Your task to perform on an android device: find snoozed emails in the gmail app Image 0: 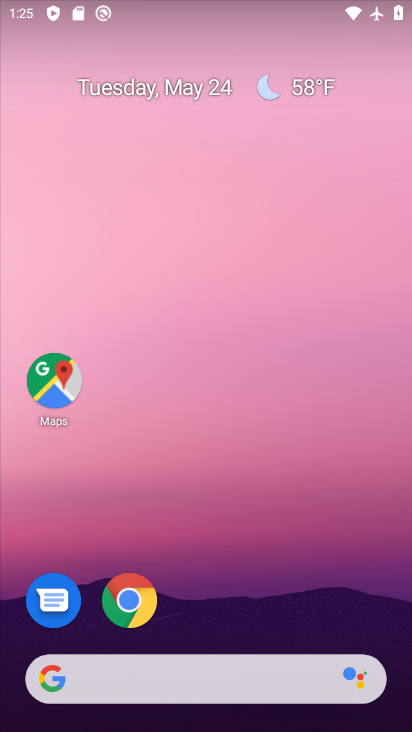
Step 0: drag from (288, 575) to (163, 52)
Your task to perform on an android device: find snoozed emails in the gmail app Image 1: 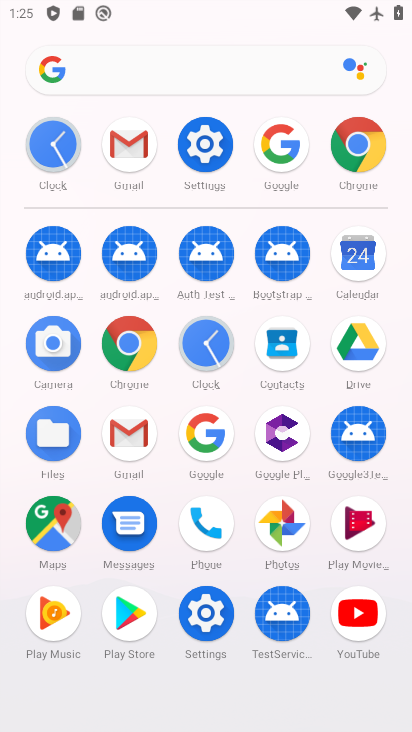
Step 1: click (136, 145)
Your task to perform on an android device: find snoozed emails in the gmail app Image 2: 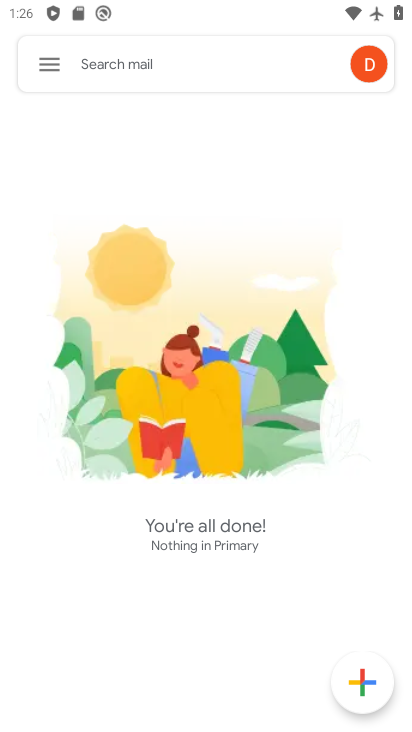
Step 2: click (47, 64)
Your task to perform on an android device: find snoozed emails in the gmail app Image 3: 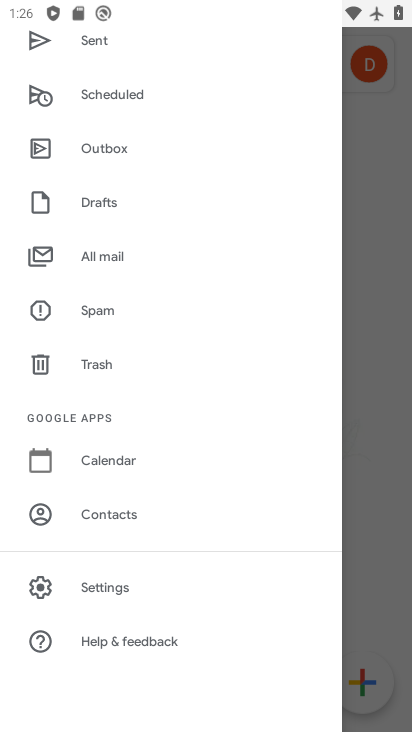
Step 3: click (154, 585)
Your task to perform on an android device: find snoozed emails in the gmail app Image 4: 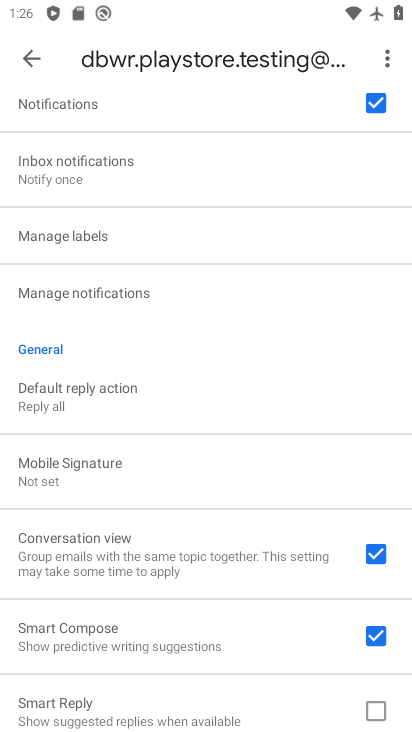
Step 4: click (32, 59)
Your task to perform on an android device: find snoozed emails in the gmail app Image 5: 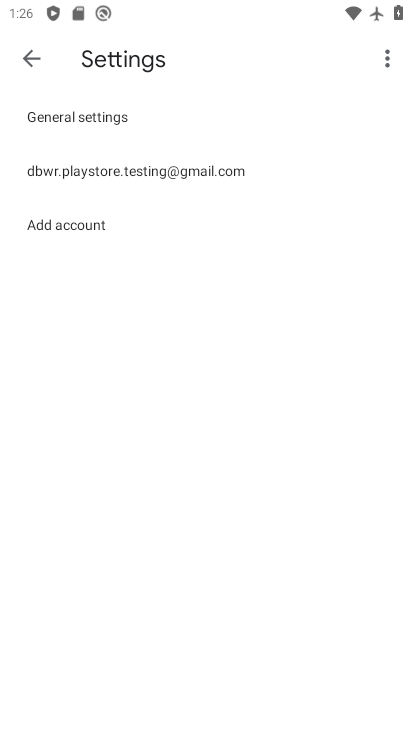
Step 5: click (33, 64)
Your task to perform on an android device: find snoozed emails in the gmail app Image 6: 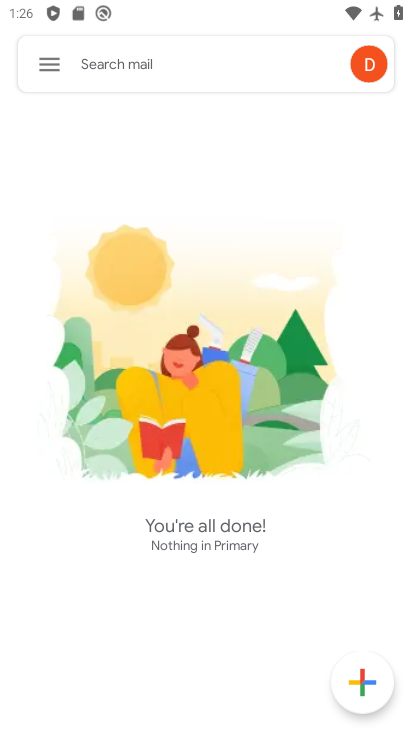
Step 6: click (52, 71)
Your task to perform on an android device: find snoozed emails in the gmail app Image 7: 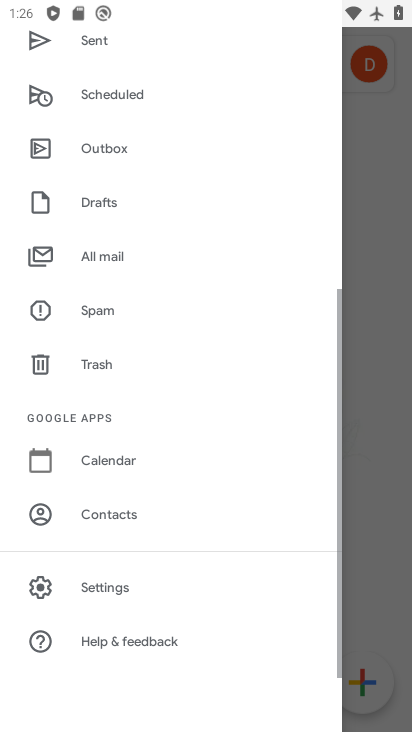
Step 7: drag from (158, 159) to (113, 689)
Your task to perform on an android device: find snoozed emails in the gmail app Image 8: 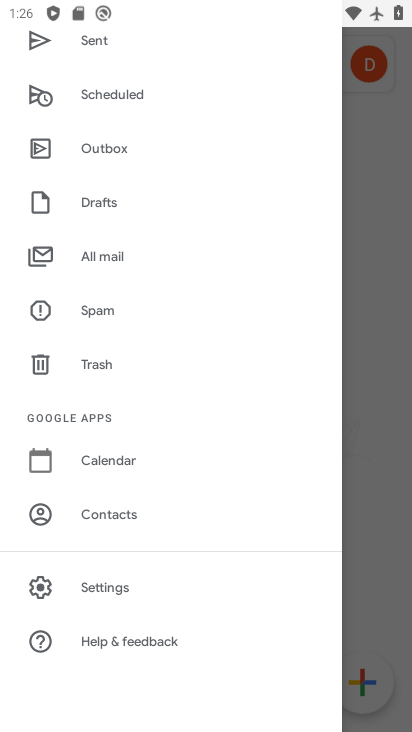
Step 8: drag from (141, 184) to (180, 701)
Your task to perform on an android device: find snoozed emails in the gmail app Image 9: 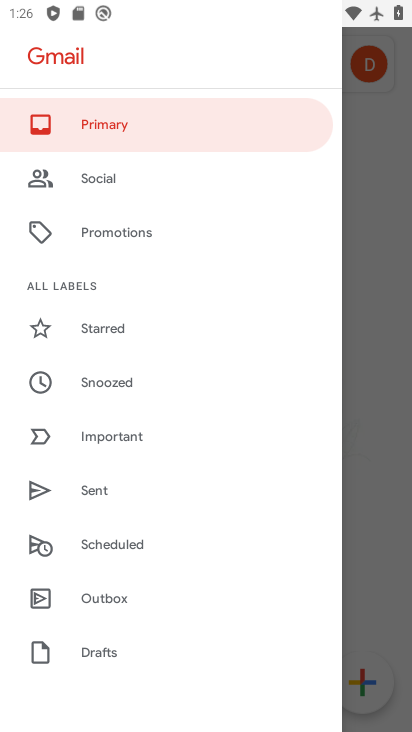
Step 9: click (137, 380)
Your task to perform on an android device: find snoozed emails in the gmail app Image 10: 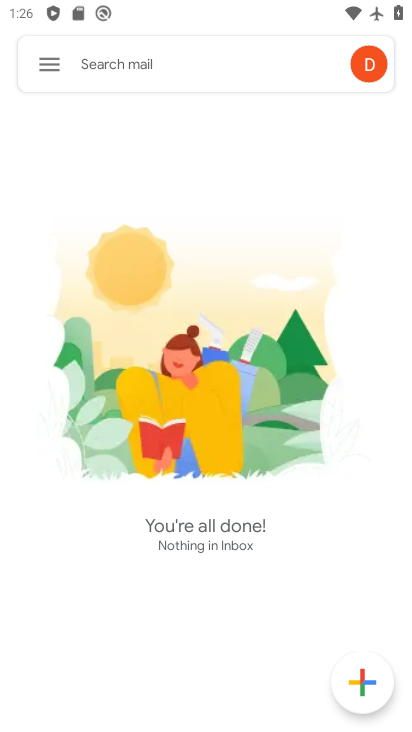
Step 10: task complete